Your task to perform on an android device: Go to Yahoo.com Image 0: 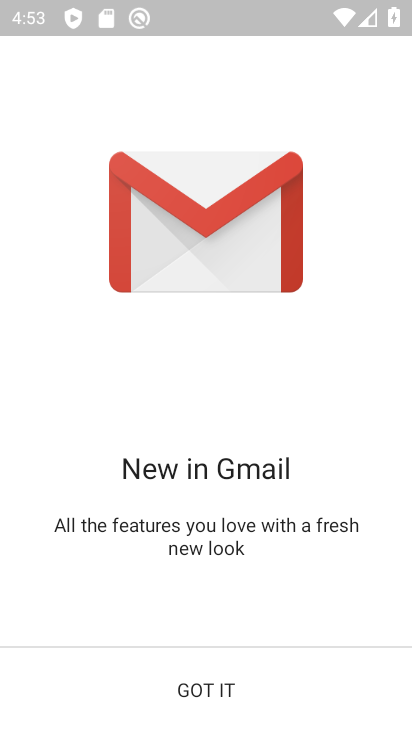
Step 0: press home button
Your task to perform on an android device: Go to Yahoo.com Image 1: 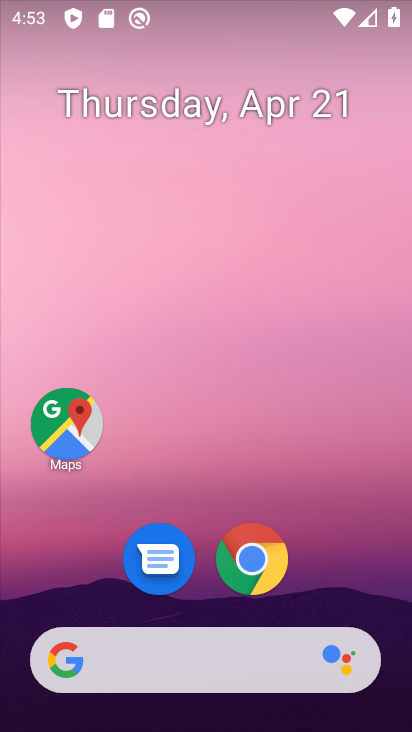
Step 1: drag from (336, 489) to (373, 45)
Your task to perform on an android device: Go to Yahoo.com Image 2: 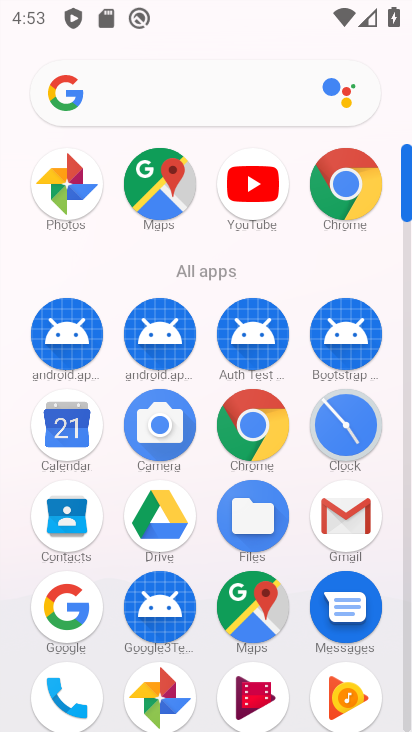
Step 2: click (359, 176)
Your task to perform on an android device: Go to Yahoo.com Image 3: 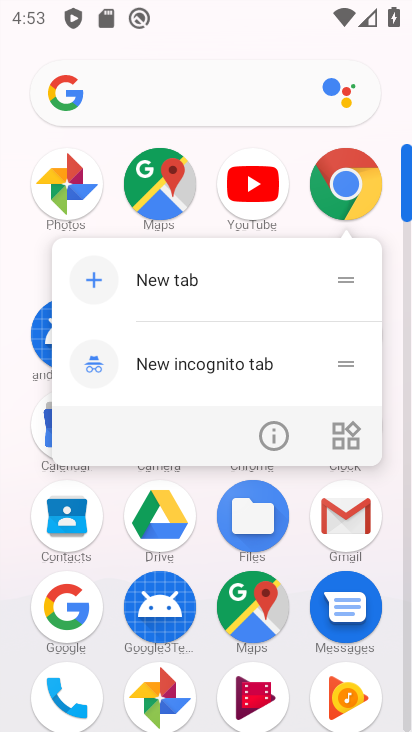
Step 3: click (359, 175)
Your task to perform on an android device: Go to Yahoo.com Image 4: 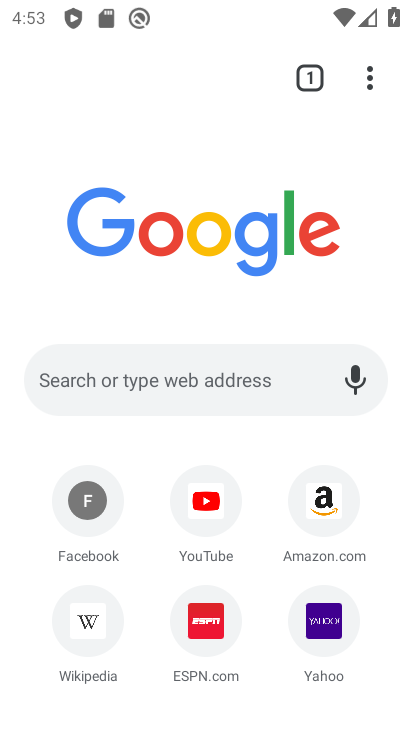
Step 4: click (327, 624)
Your task to perform on an android device: Go to Yahoo.com Image 5: 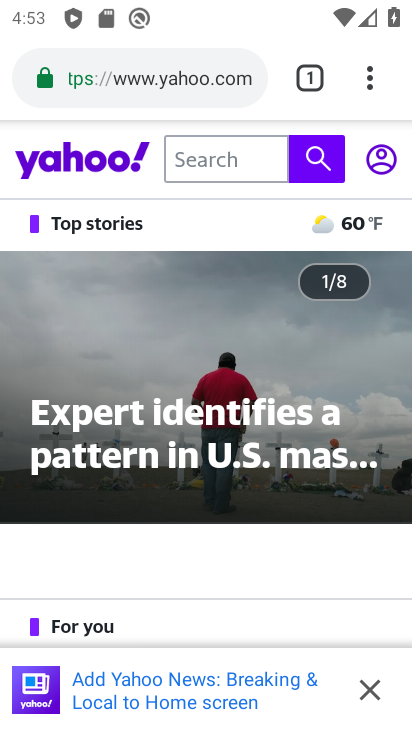
Step 5: task complete